Your task to perform on an android device: Go to privacy settings Image 0: 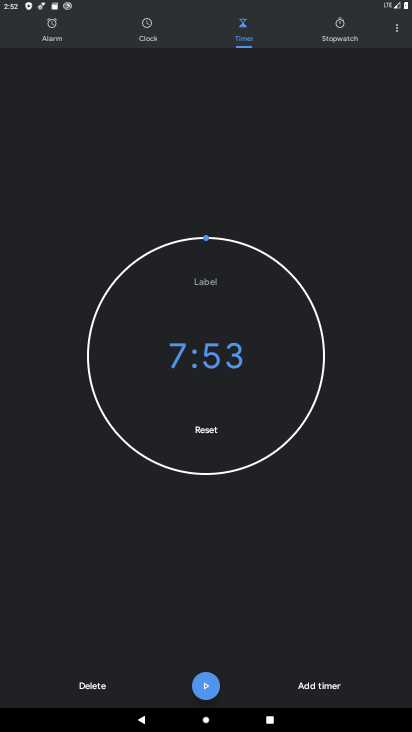
Step 0: press home button
Your task to perform on an android device: Go to privacy settings Image 1: 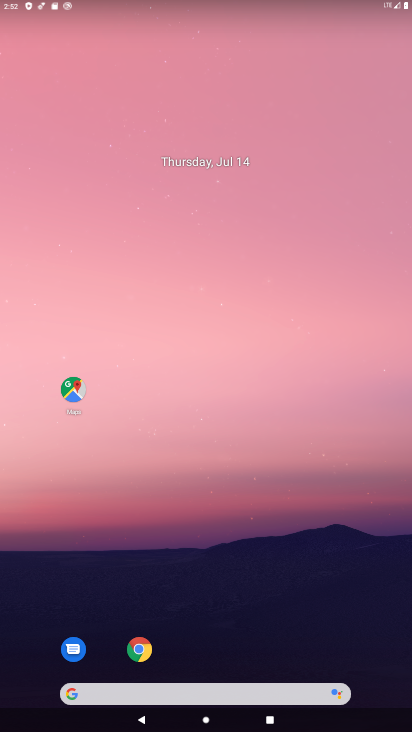
Step 1: drag from (182, 652) to (242, 9)
Your task to perform on an android device: Go to privacy settings Image 2: 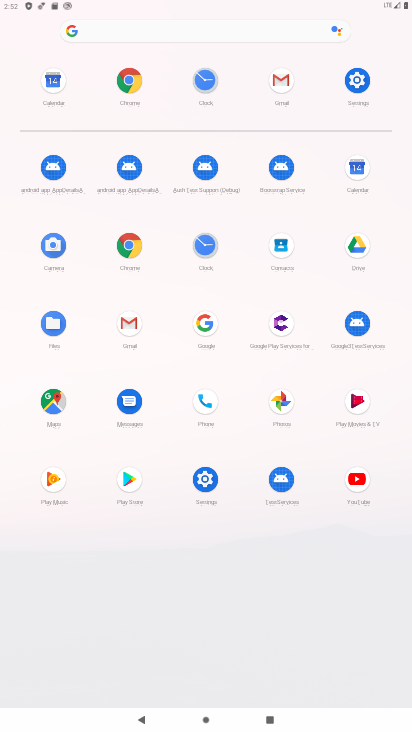
Step 2: click (209, 496)
Your task to perform on an android device: Go to privacy settings Image 3: 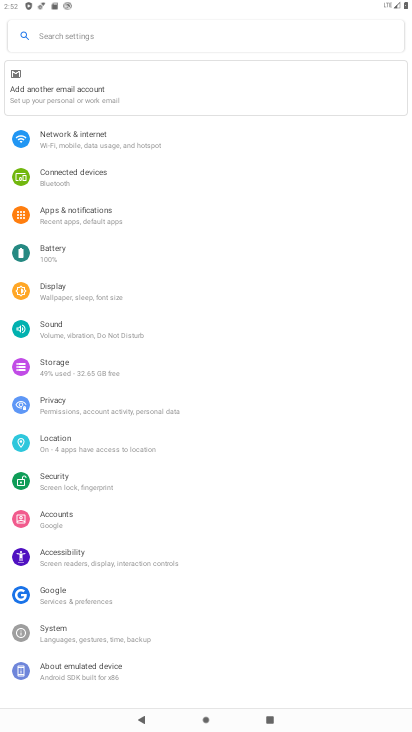
Step 3: click (78, 401)
Your task to perform on an android device: Go to privacy settings Image 4: 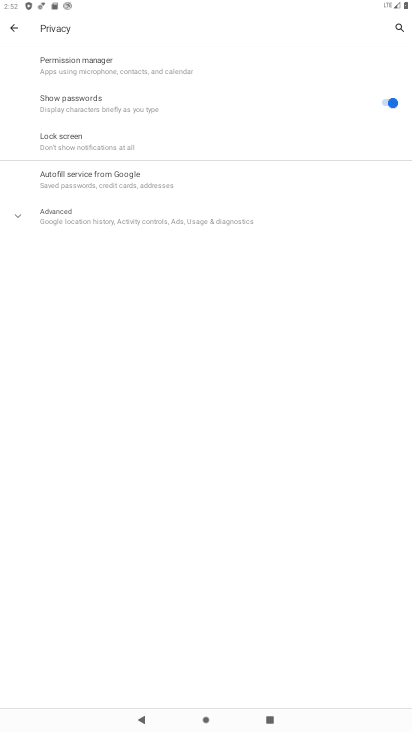
Step 4: task complete